Your task to perform on an android device: make emails show in primary in the gmail app Image 0: 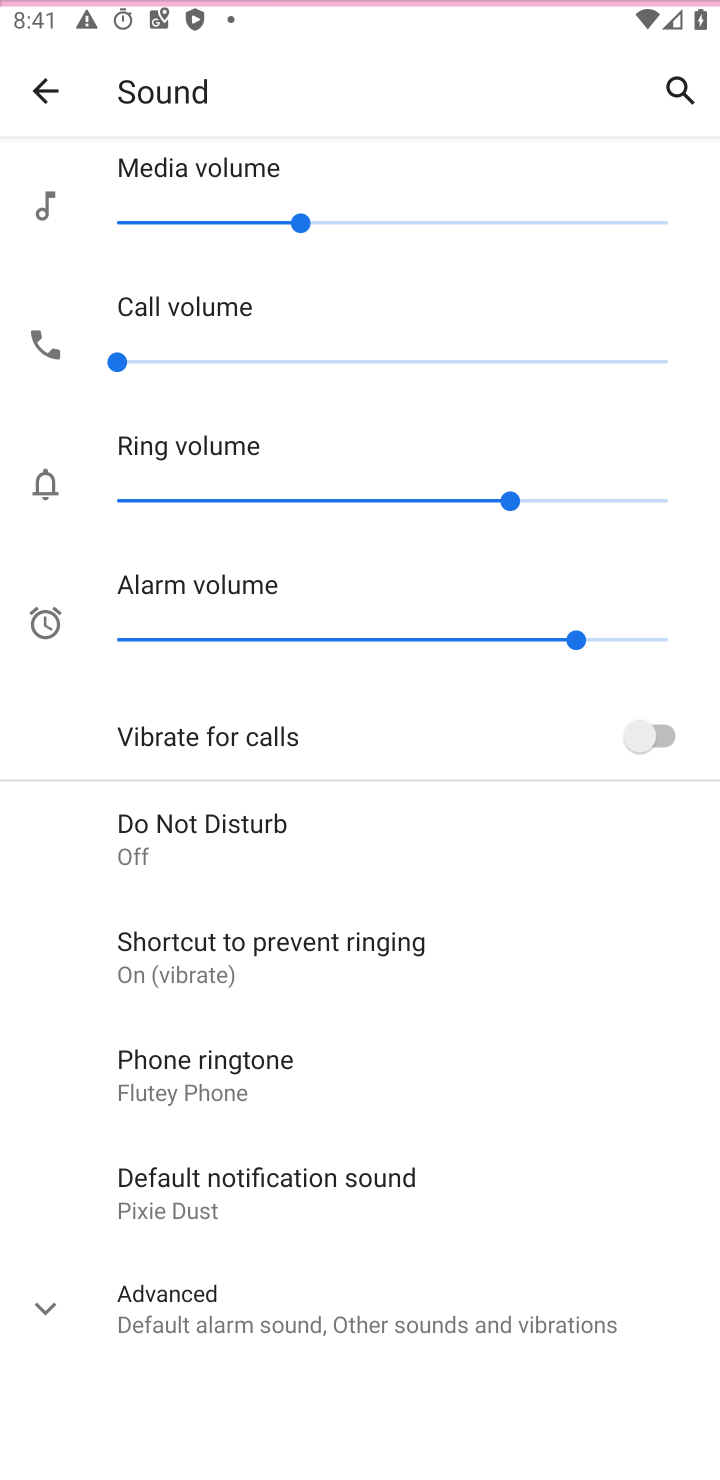
Step 0: press home button
Your task to perform on an android device: make emails show in primary in the gmail app Image 1: 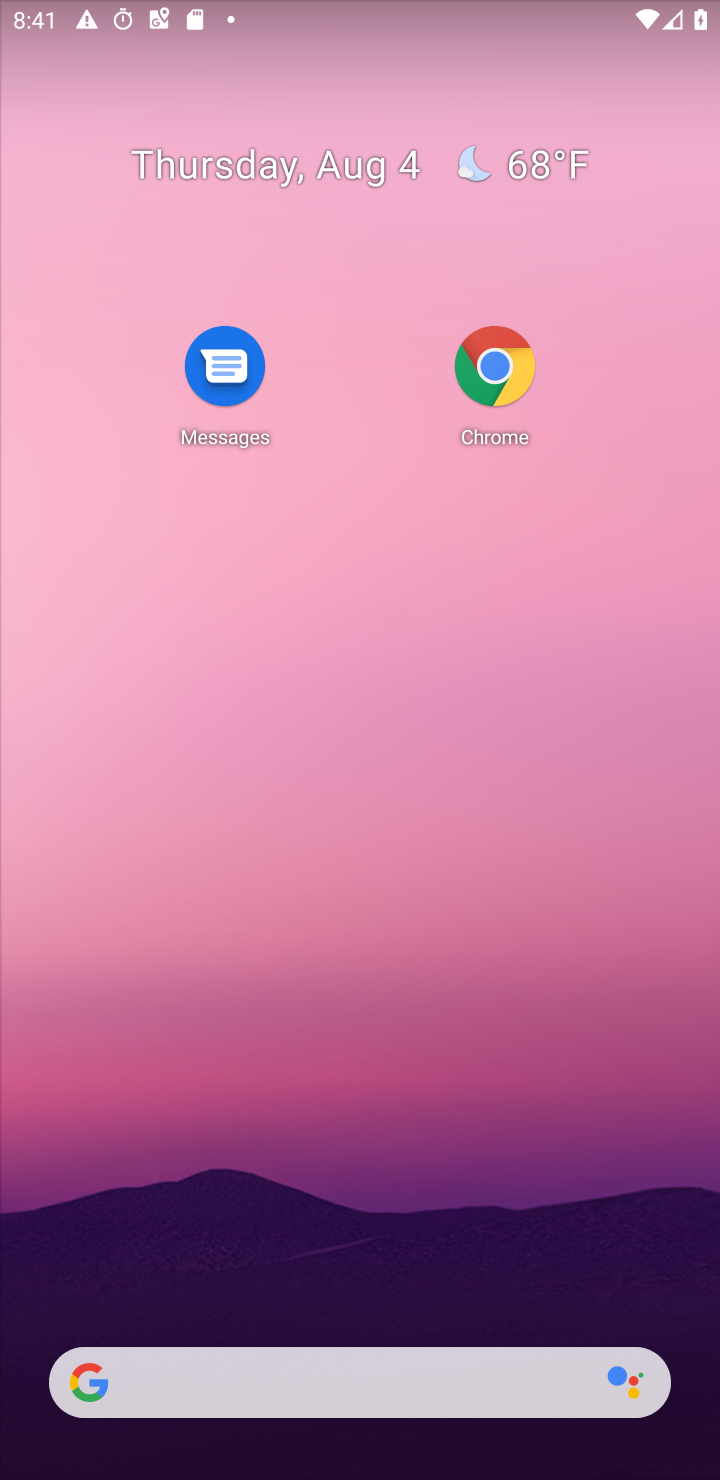
Step 1: drag from (353, 1412) to (387, 321)
Your task to perform on an android device: make emails show in primary in the gmail app Image 2: 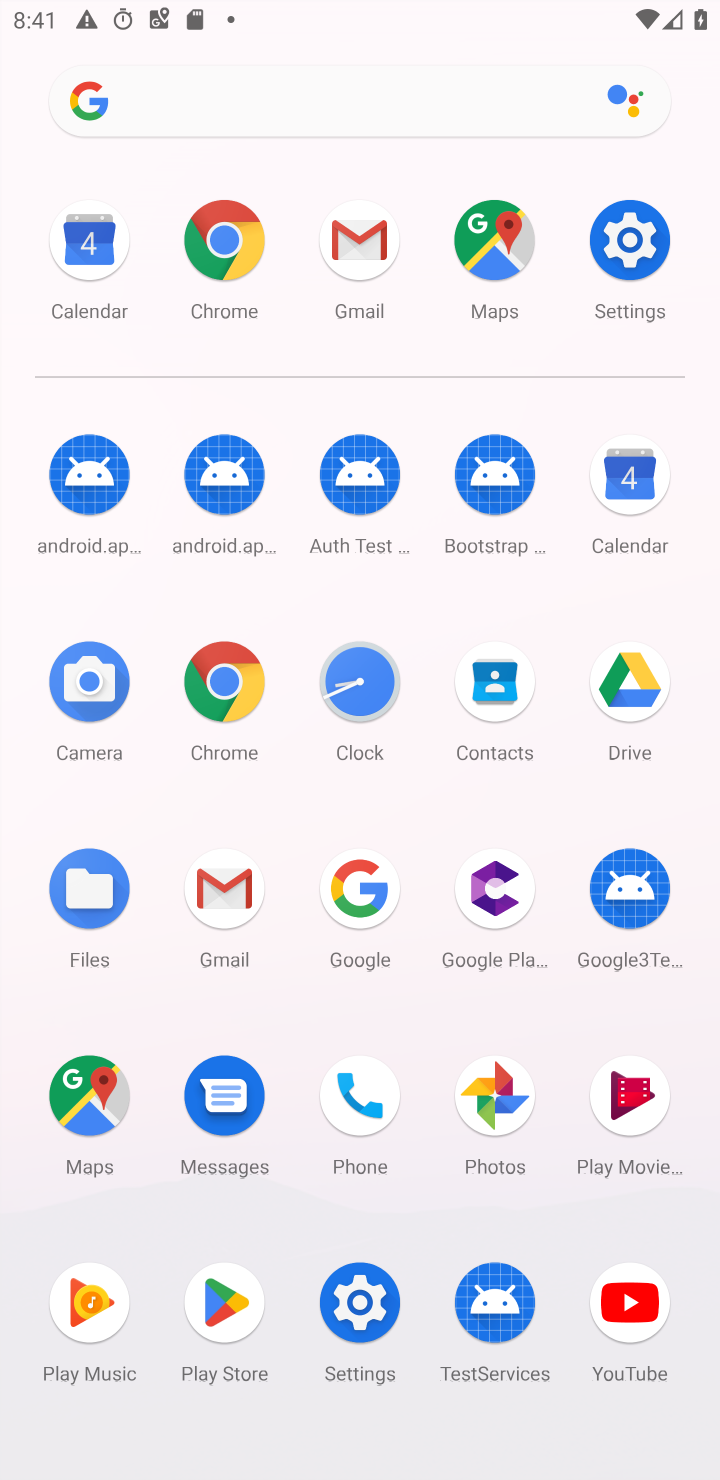
Step 2: click (229, 912)
Your task to perform on an android device: make emails show in primary in the gmail app Image 3: 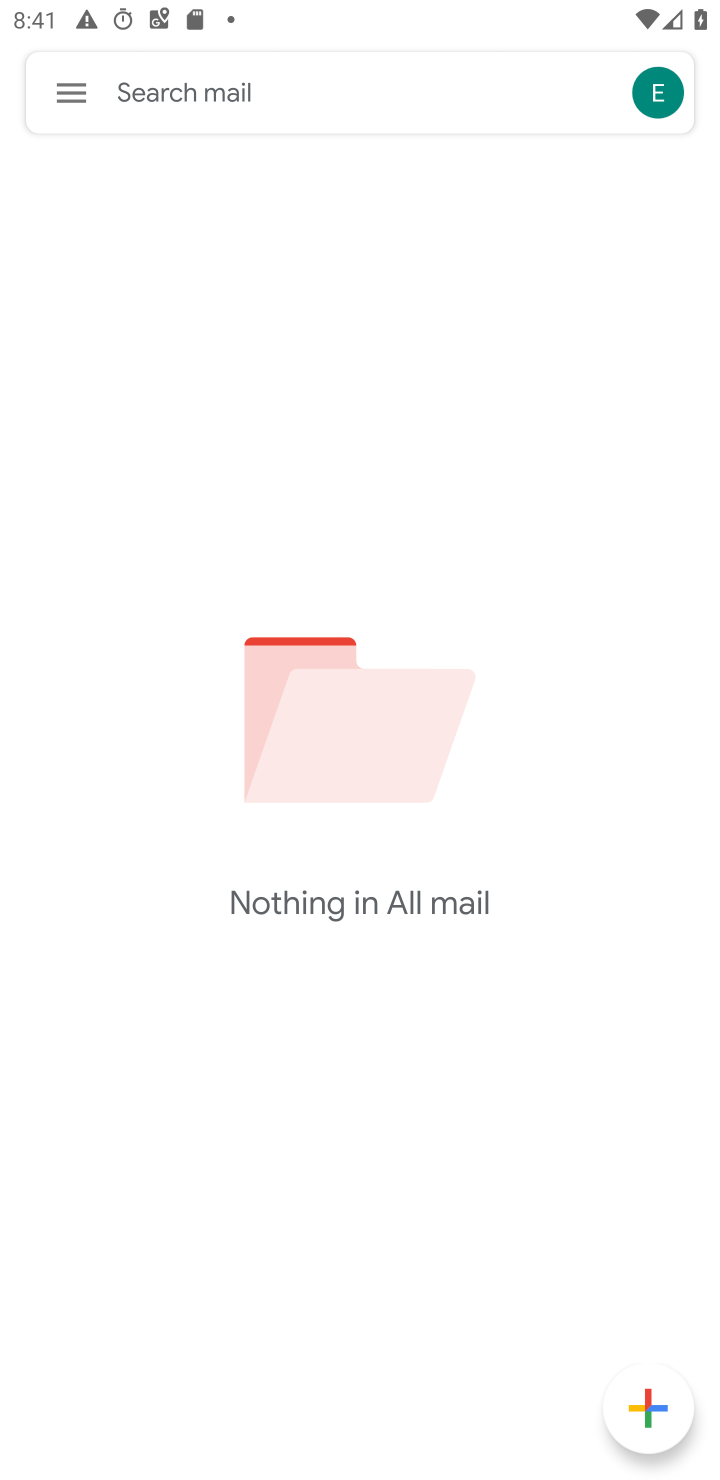
Step 3: click (76, 91)
Your task to perform on an android device: make emails show in primary in the gmail app Image 4: 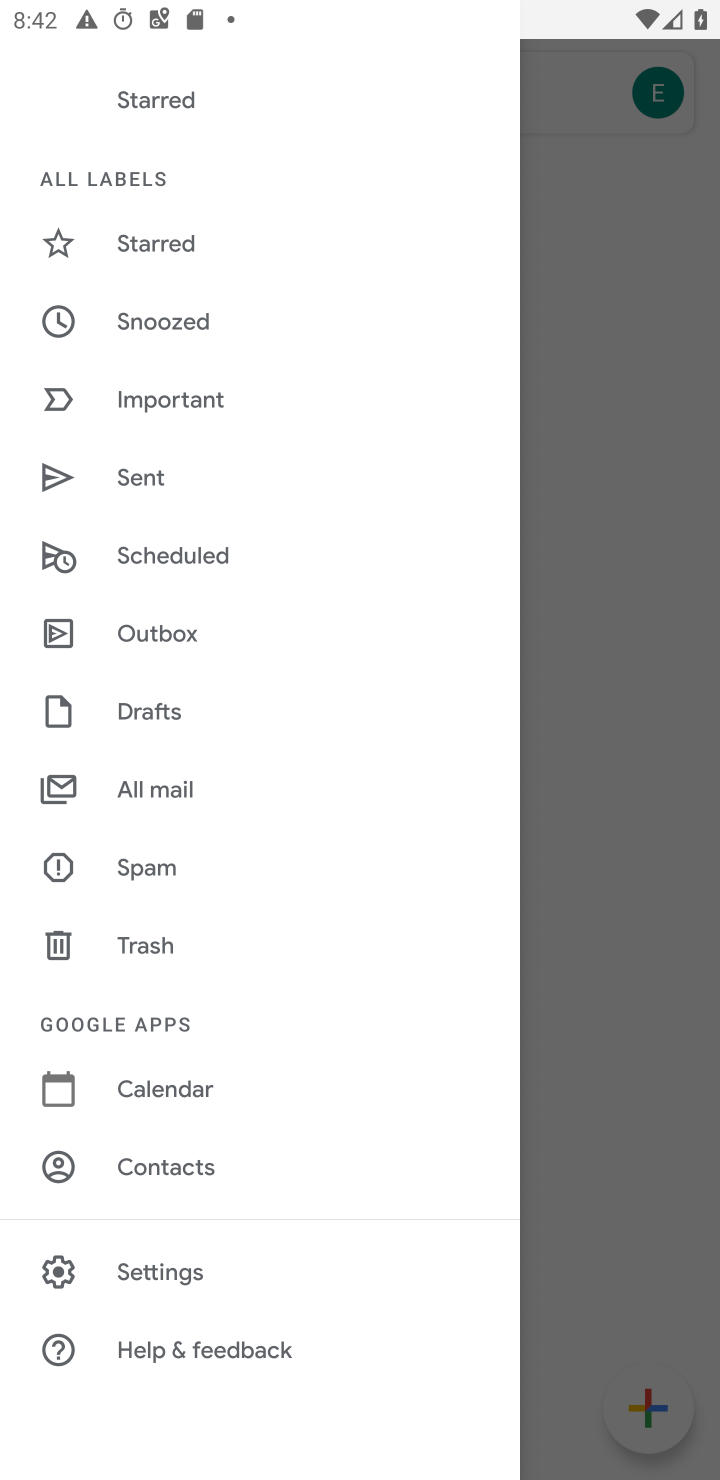
Step 4: click (205, 1266)
Your task to perform on an android device: make emails show in primary in the gmail app Image 5: 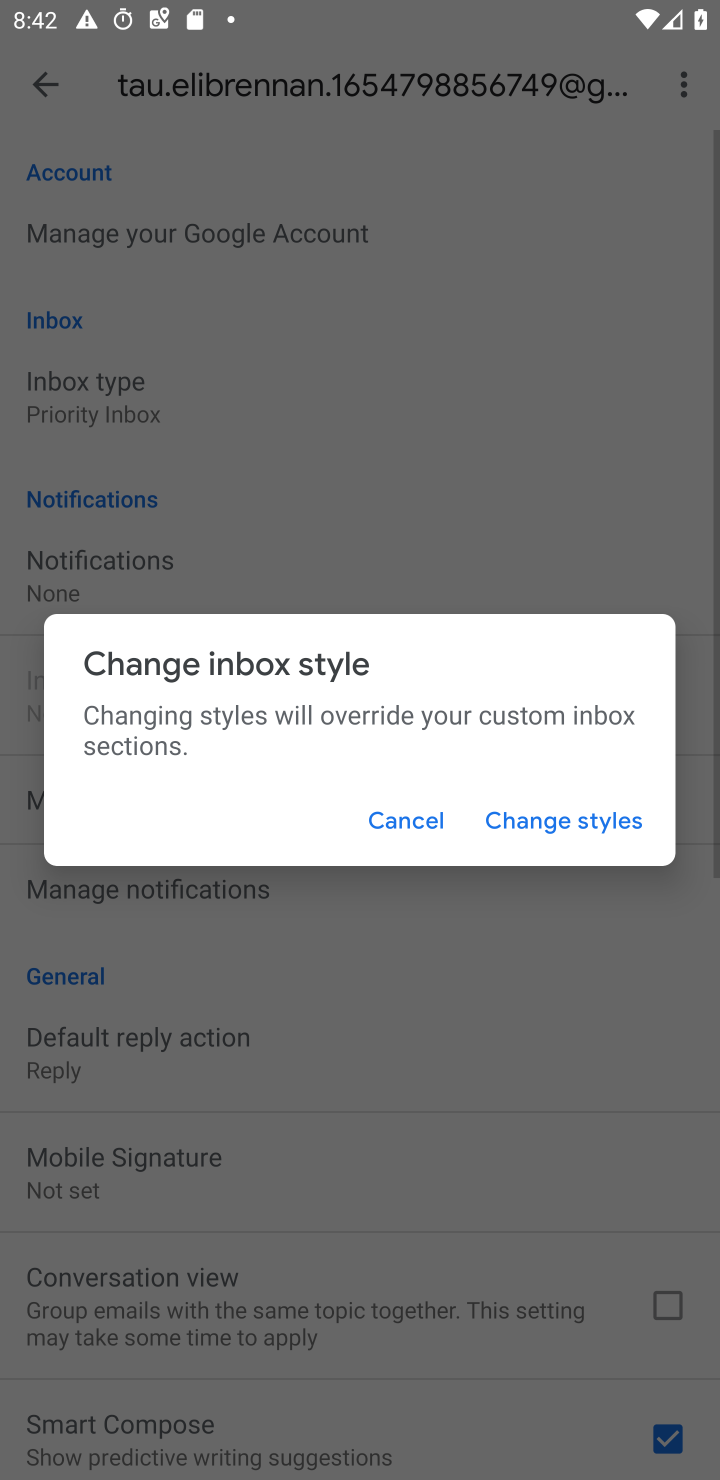
Step 5: click (405, 814)
Your task to perform on an android device: make emails show in primary in the gmail app Image 6: 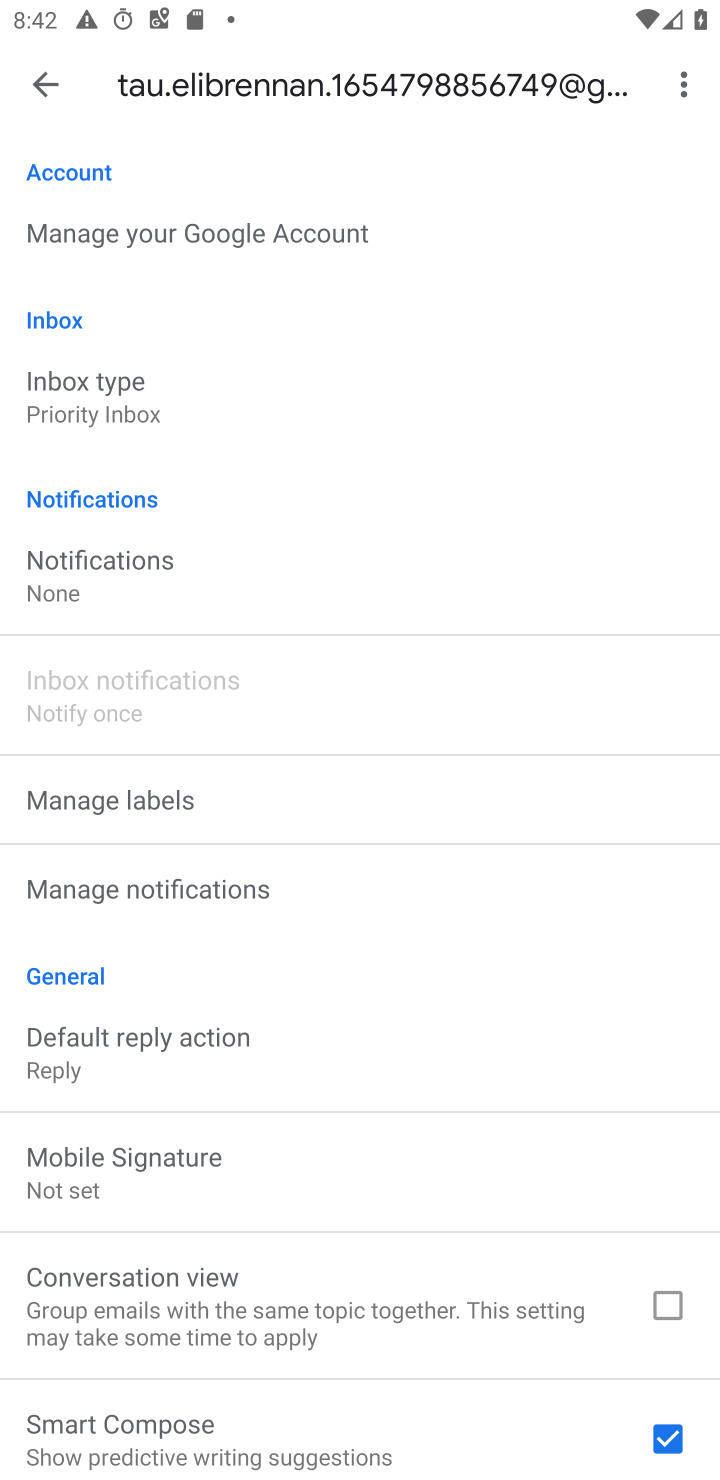
Step 6: click (123, 410)
Your task to perform on an android device: make emails show in primary in the gmail app Image 7: 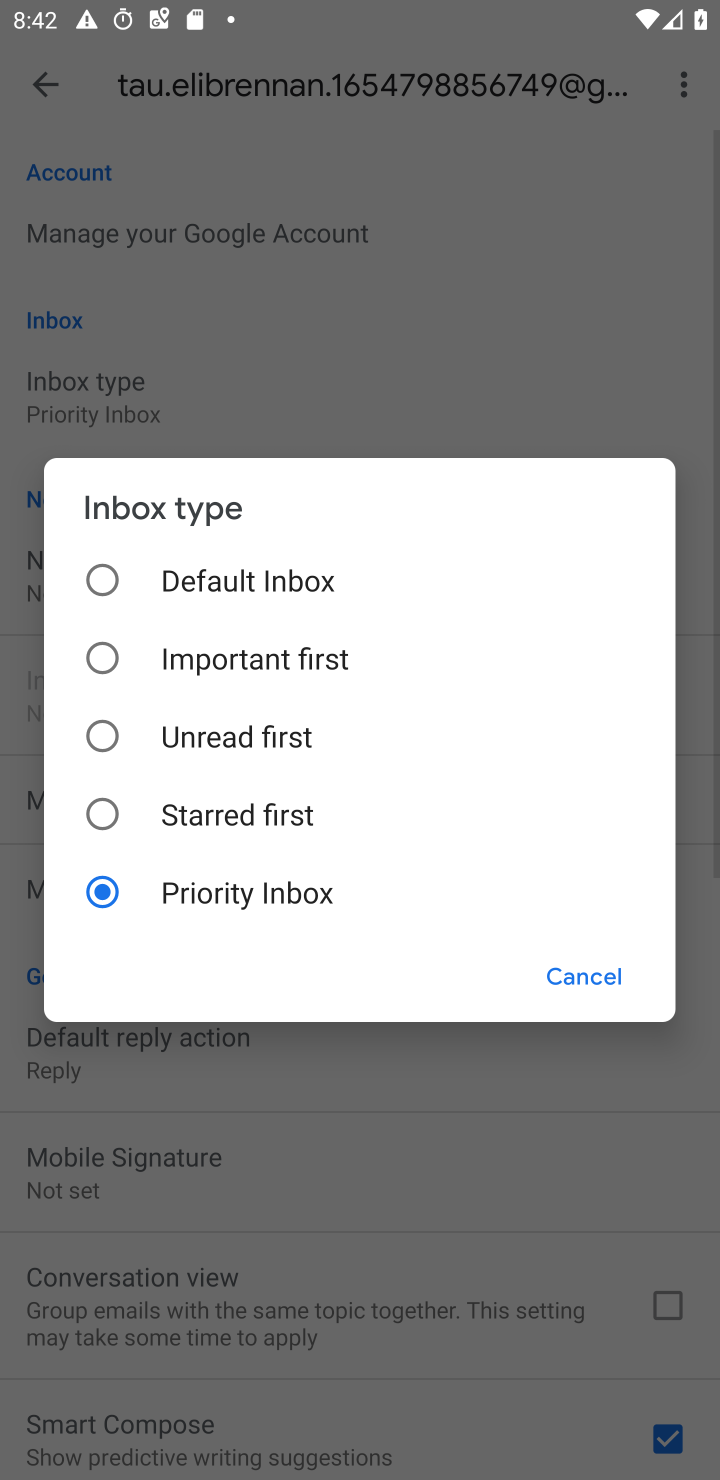
Step 7: click (224, 576)
Your task to perform on an android device: make emails show in primary in the gmail app Image 8: 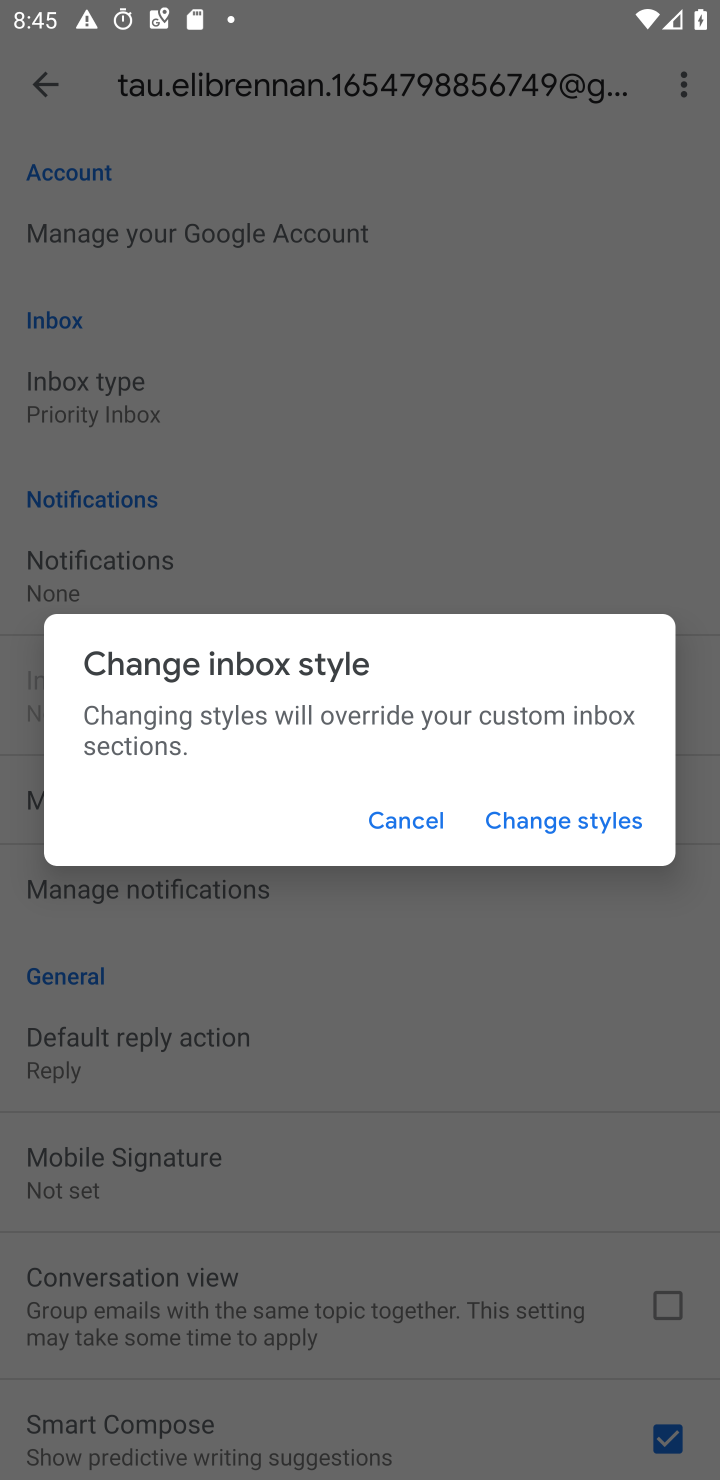
Step 8: task complete